Your task to perform on an android device: turn off notifications settings in the gmail app Image 0: 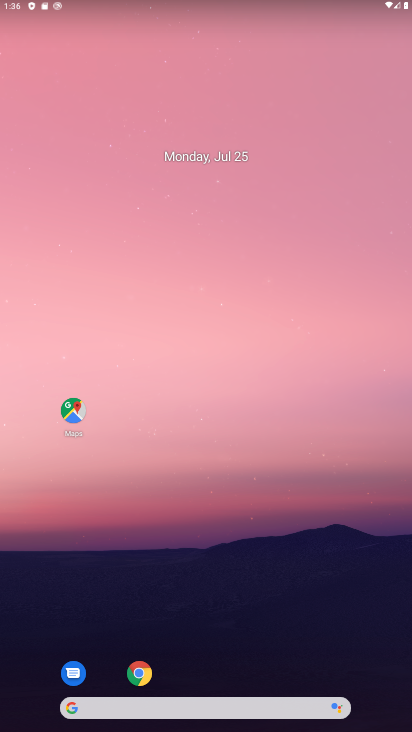
Step 0: drag from (196, 683) to (212, 174)
Your task to perform on an android device: turn off notifications settings in the gmail app Image 1: 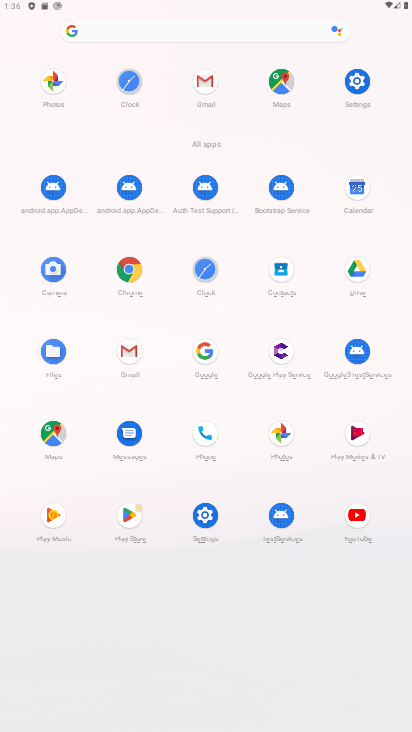
Step 1: click (357, 97)
Your task to perform on an android device: turn off notifications settings in the gmail app Image 2: 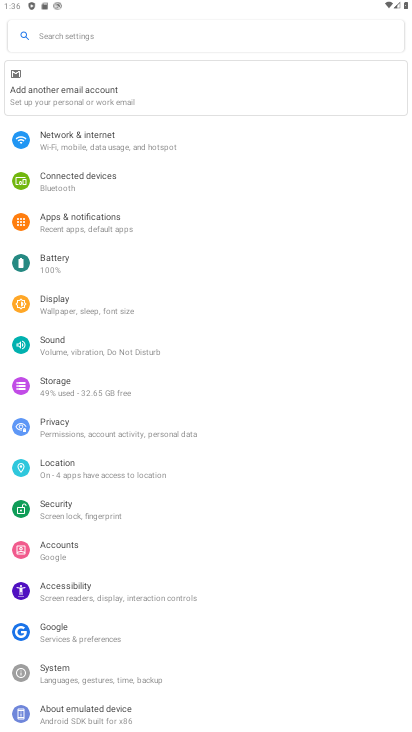
Step 2: click (103, 233)
Your task to perform on an android device: turn off notifications settings in the gmail app Image 3: 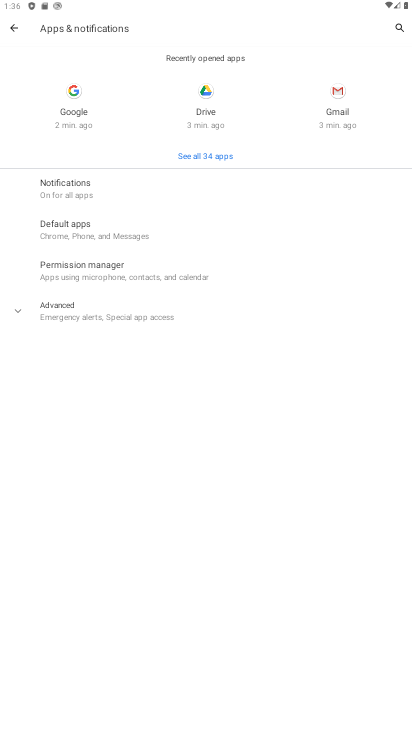
Step 3: click (106, 203)
Your task to perform on an android device: turn off notifications settings in the gmail app Image 4: 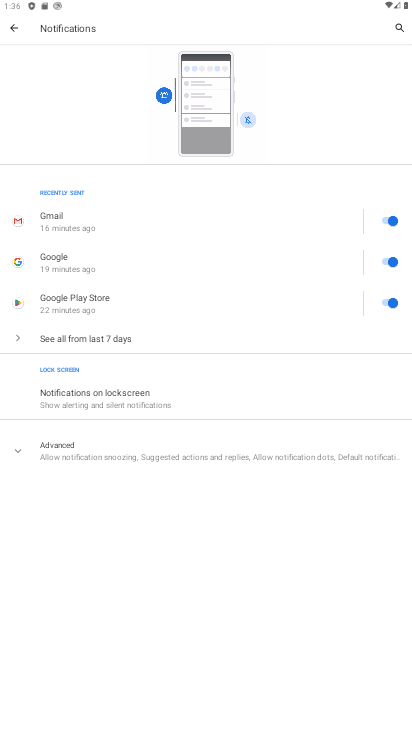
Step 4: click (391, 225)
Your task to perform on an android device: turn off notifications settings in the gmail app Image 5: 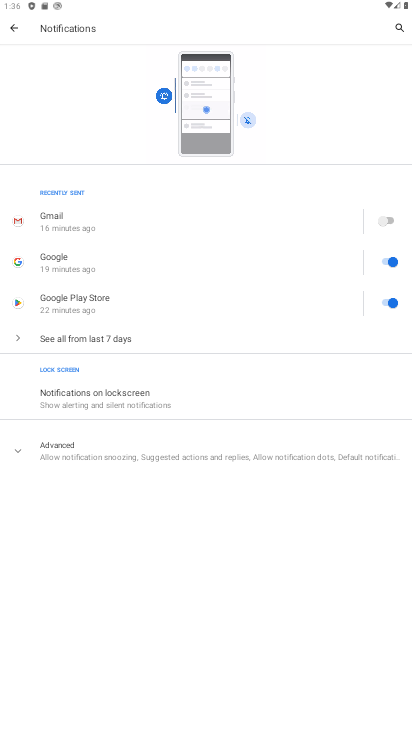
Step 5: task complete